Your task to perform on an android device: check storage Image 0: 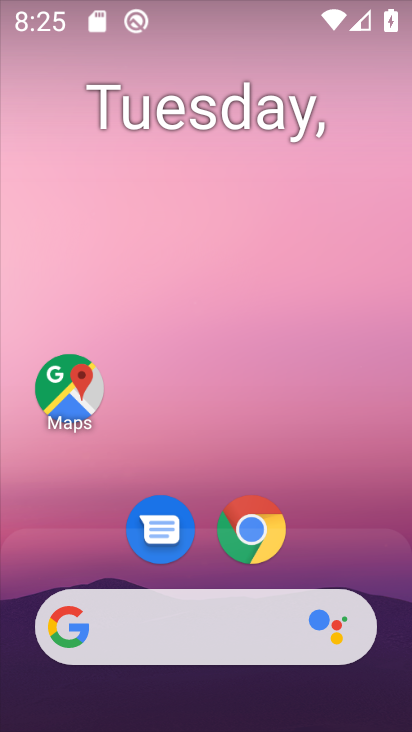
Step 0: drag from (341, 426) to (271, 32)
Your task to perform on an android device: check storage Image 1: 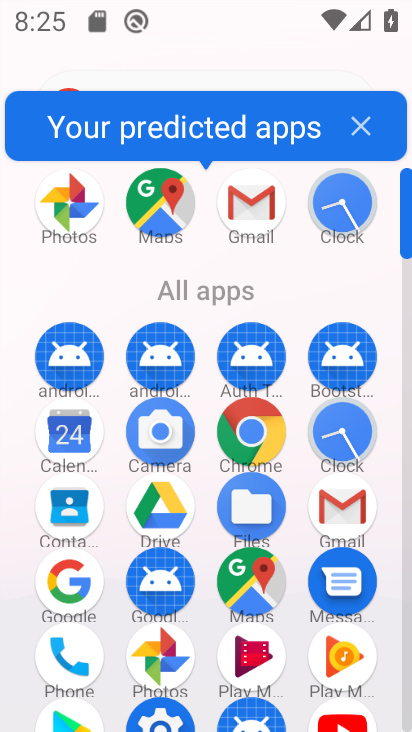
Step 1: drag from (285, 532) to (287, 231)
Your task to perform on an android device: check storage Image 2: 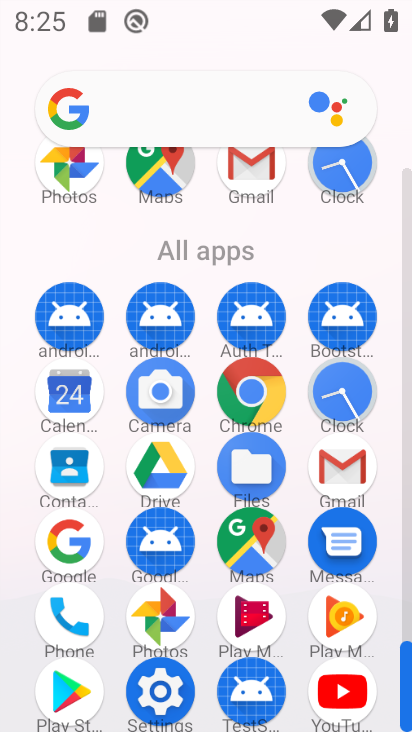
Step 2: drag from (295, 552) to (329, 215)
Your task to perform on an android device: check storage Image 3: 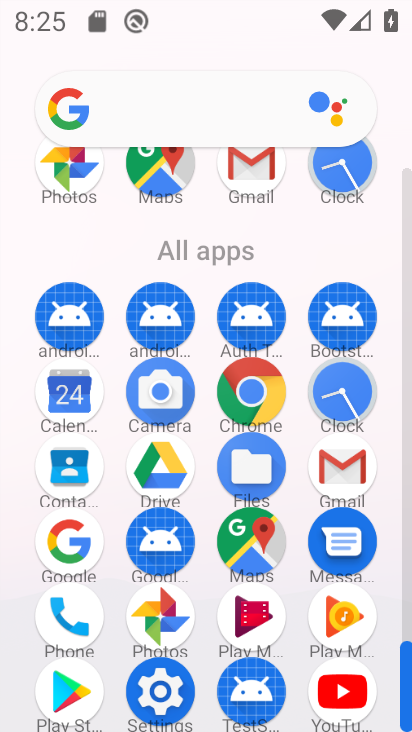
Step 3: click (171, 687)
Your task to perform on an android device: check storage Image 4: 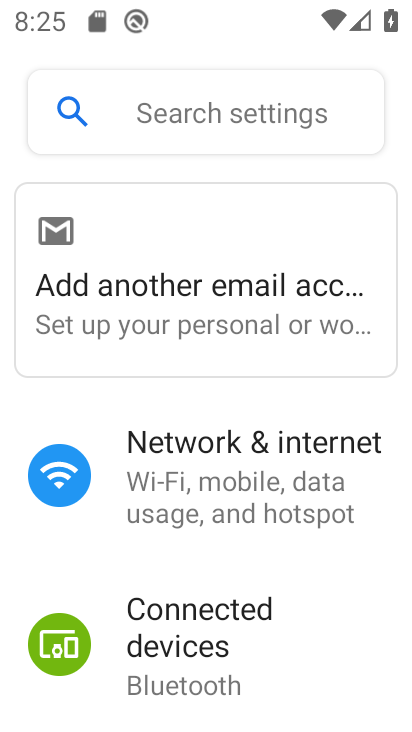
Step 4: drag from (348, 641) to (332, 255)
Your task to perform on an android device: check storage Image 5: 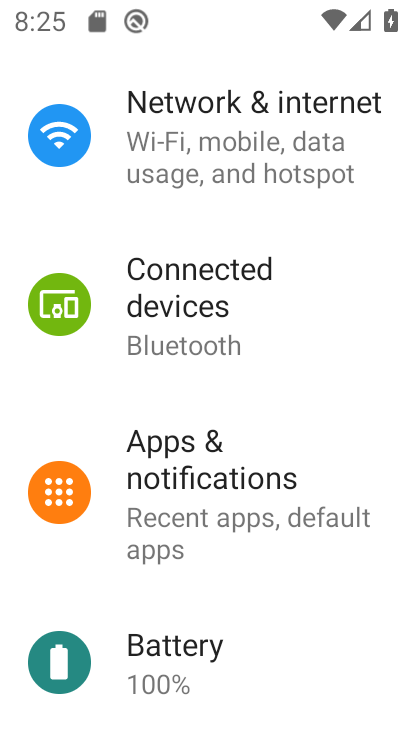
Step 5: drag from (296, 569) to (258, 219)
Your task to perform on an android device: check storage Image 6: 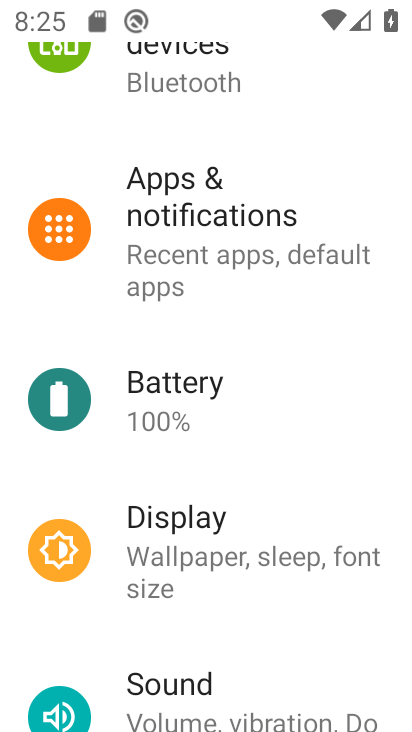
Step 6: drag from (205, 521) to (231, 264)
Your task to perform on an android device: check storage Image 7: 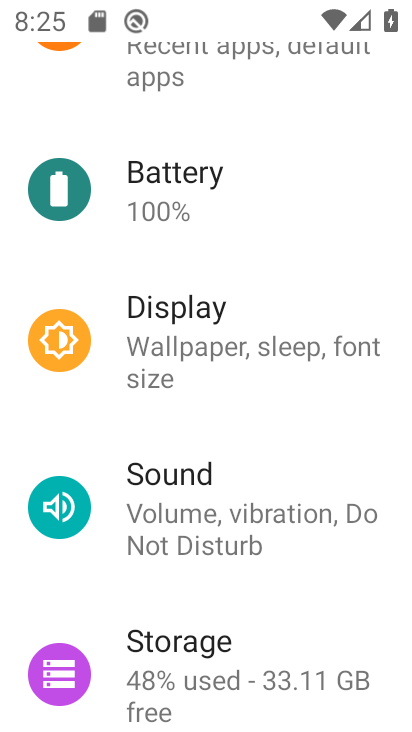
Step 7: click (201, 621)
Your task to perform on an android device: check storage Image 8: 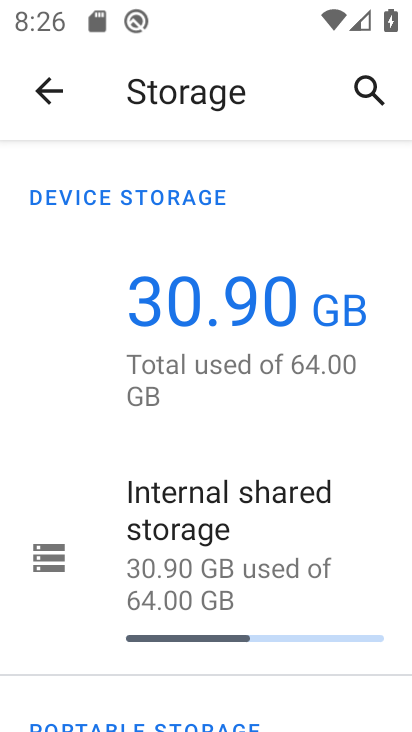
Step 8: task complete